Your task to perform on an android device: turn on the 12-hour format for clock Image 0: 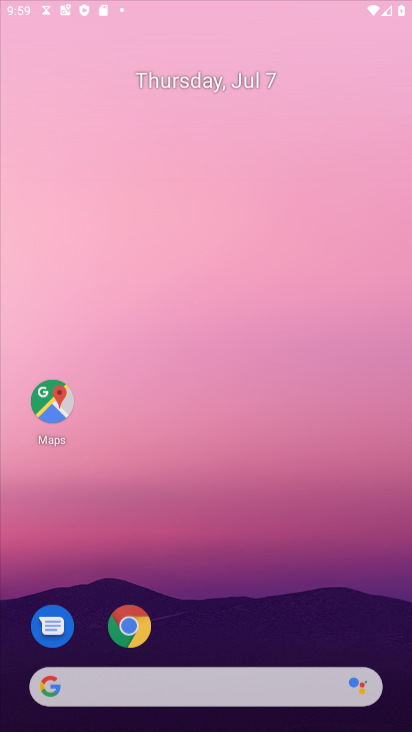
Step 0: drag from (221, 621) to (217, 281)
Your task to perform on an android device: turn on the 12-hour format for clock Image 1: 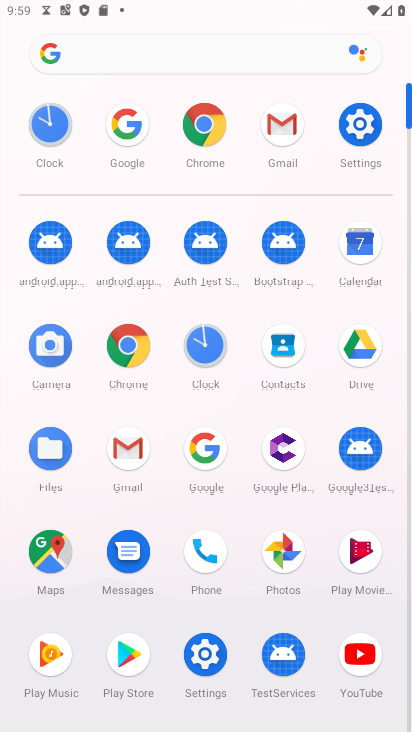
Step 1: click (352, 126)
Your task to perform on an android device: turn on the 12-hour format for clock Image 2: 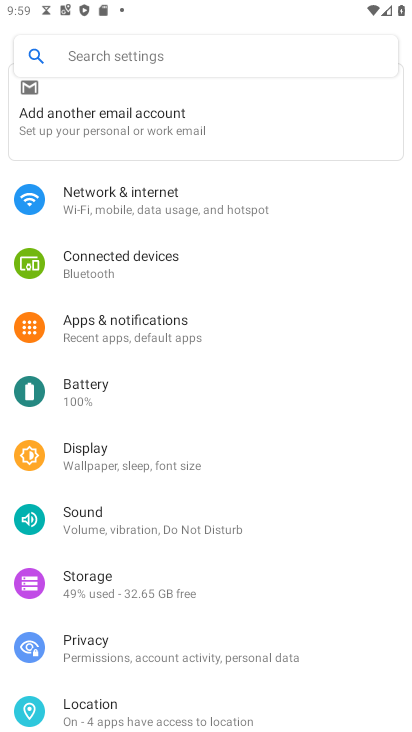
Step 2: drag from (181, 700) to (130, 287)
Your task to perform on an android device: turn on the 12-hour format for clock Image 3: 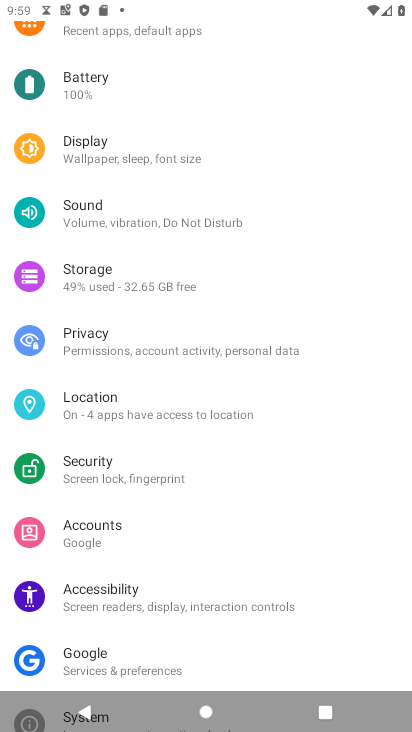
Step 3: press home button
Your task to perform on an android device: turn on the 12-hour format for clock Image 4: 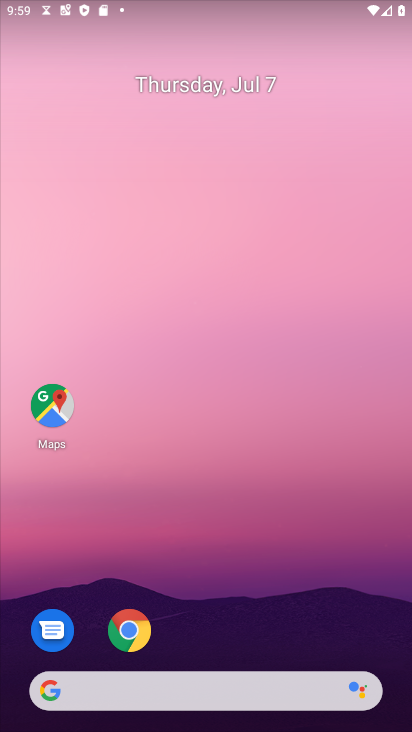
Step 4: drag from (248, 675) to (201, 368)
Your task to perform on an android device: turn on the 12-hour format for clock Image 5: 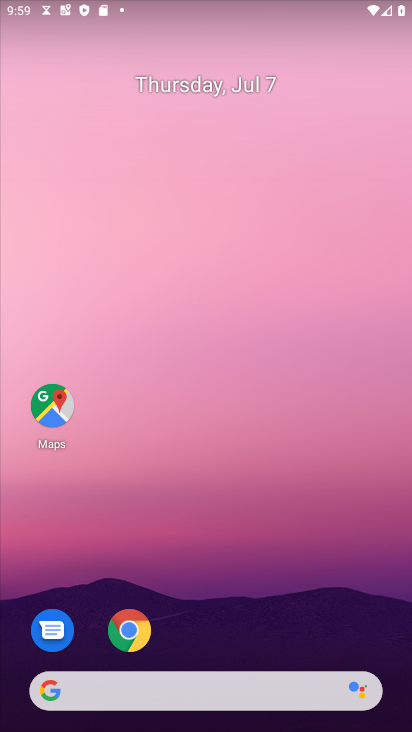
Step 5: drag from (223, 540) to (187, 260)
Your task to perform on an android device: turn on the 12-hour format for clock Image 6: 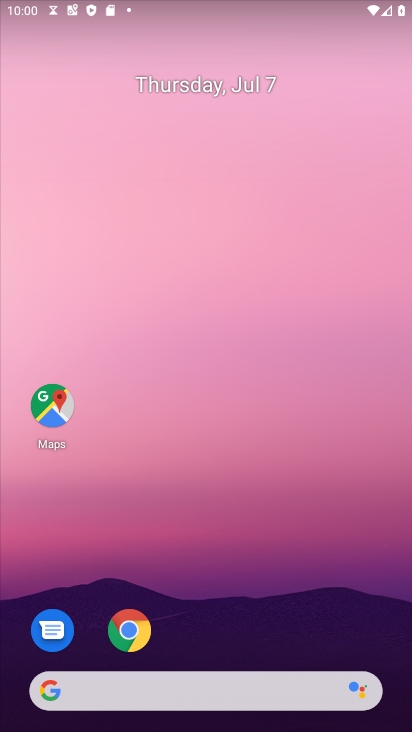
Step 6: drag from (250, 667) to (245, 144)
Your task to perform on an android device: turn on the 12-hour format for clock Image 7: 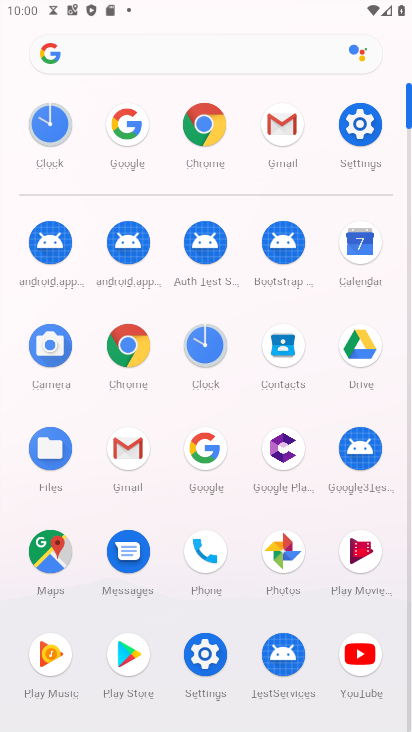
Step 7: click (211, 348)
Your task to perform on an android device: turn on the 12-hour format for clock Image 8: 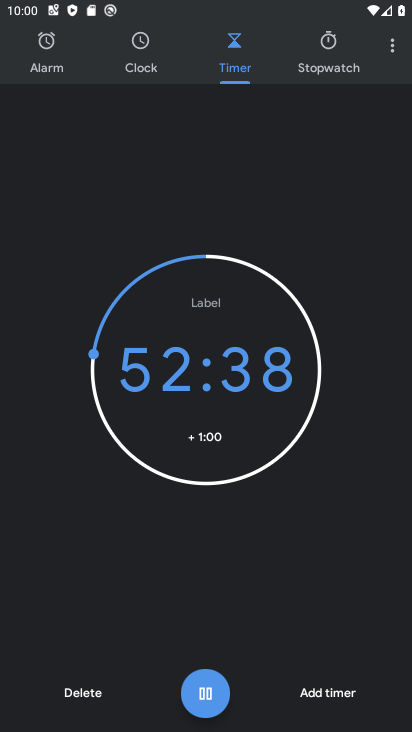
Step 8: click (387, 52)
Your task to perform on an android device: turn on the 12-hour format for clock Image 9: 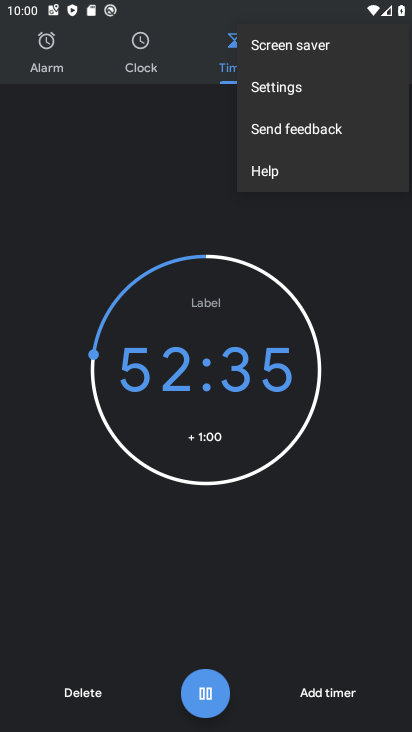
Step 9: click (283, 85)
Your task to perform on an android device: turn on the 12-hour format for clock Image 10: 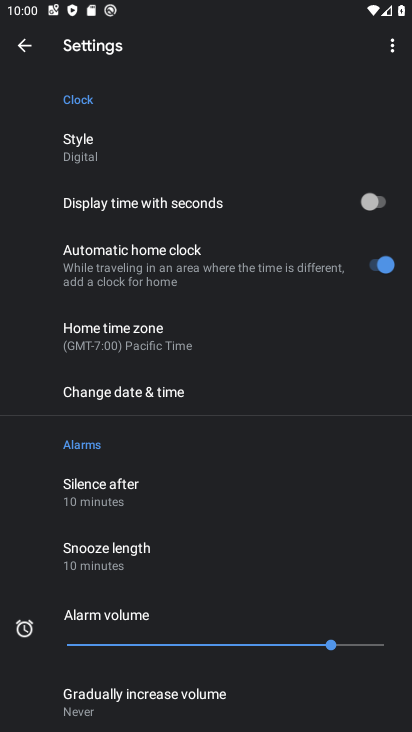
Step 10: drag from (225, 685) to (203, 309)
Your task to perform on an android device: turn on the 12-hour format for clock Image 11: 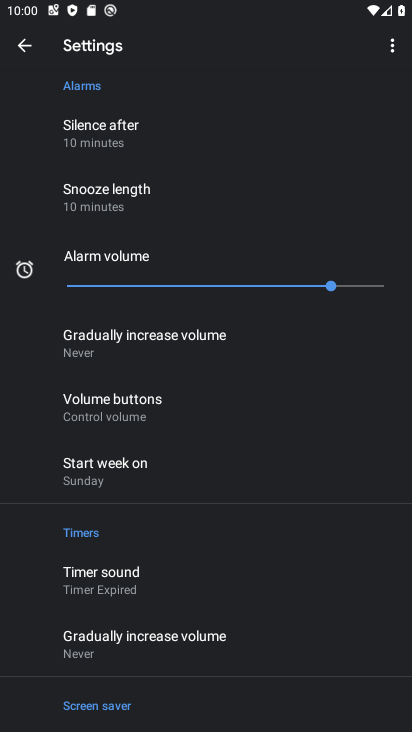
Step 11: drag from (189, 340) to (191, 592)
Your task to perform on an android device: turn on the 12-hour format for clock Image 12: 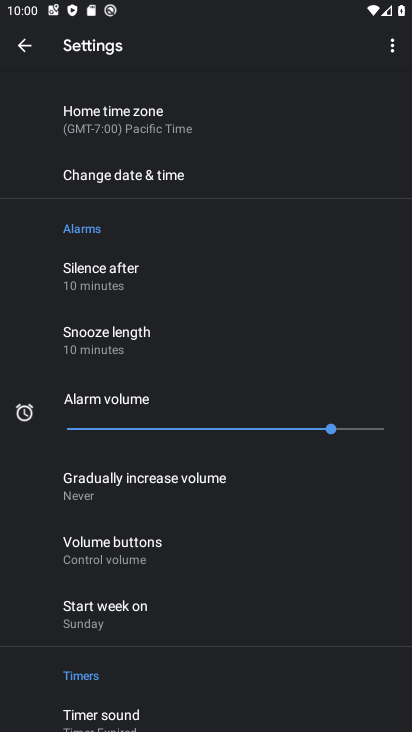
Step 12: click (103, 179)
Your task to perform on an android device: turn on the 12-hour format for clock Image 13: 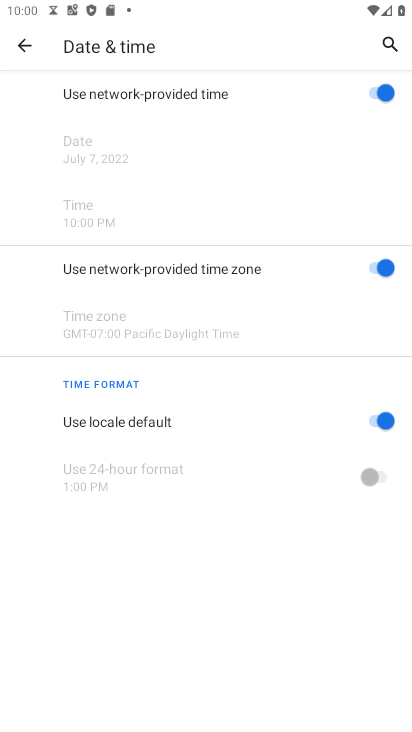
Step 13: task complete